Your task to perform on an android device: turn on sleep mode Image 0: 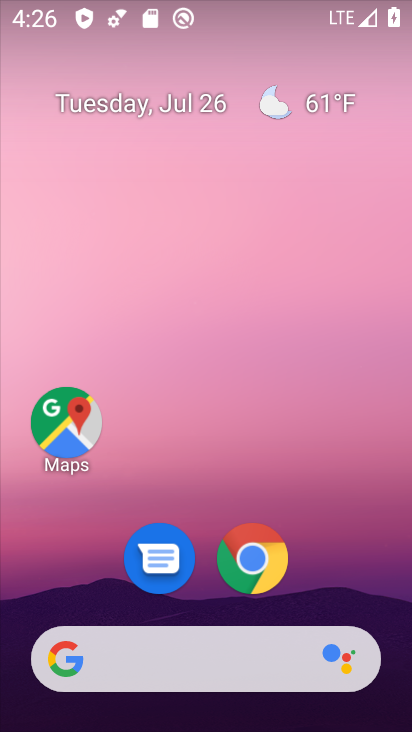
Step 0: drag from (97, 556) to (178, 32)
Your task to perform on an android device: turn on sleep mode Image 1: 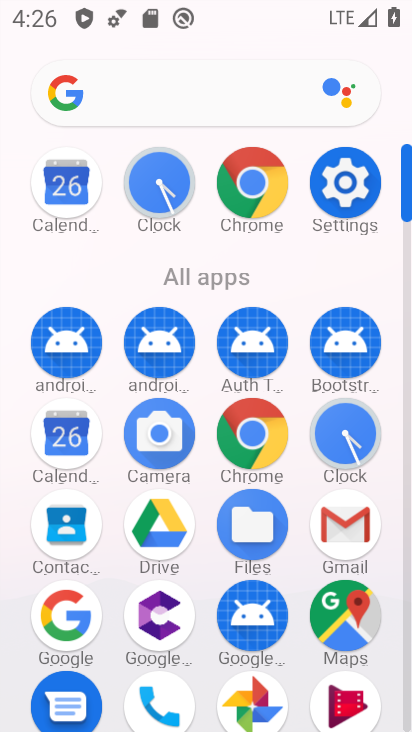
Step 1: click (344, 202)
Your task to perform on an android device: turn on sleep mode Image 2: 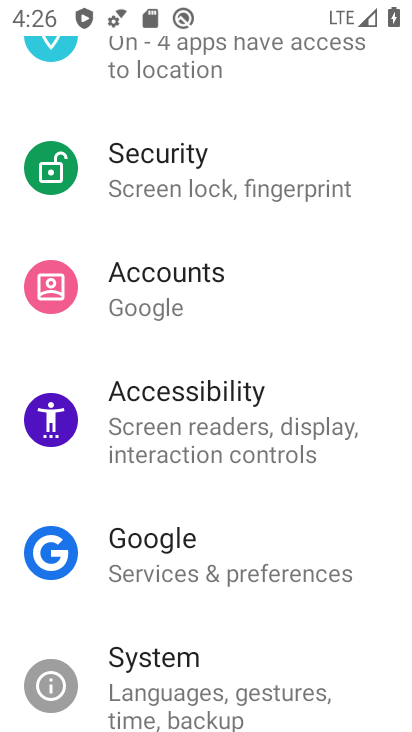
Step 2: drag from (178, 191) to (174, 699)
Your task to perform on an android device: turn on sleep mode Image 3: 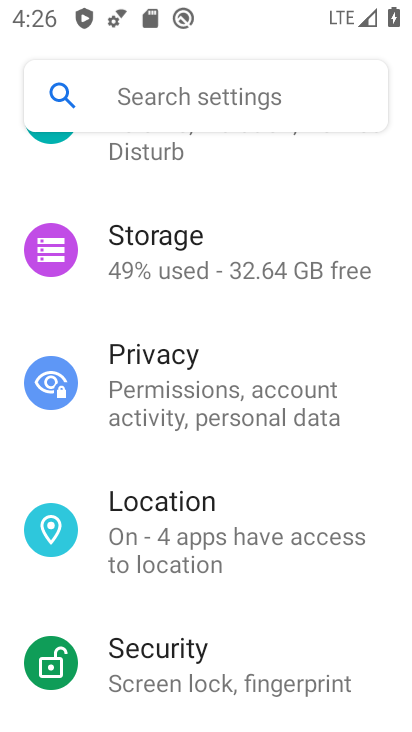
Step 3: click (156, 109)
Your task to perform on an android device: turn on sleep mode Image 4: 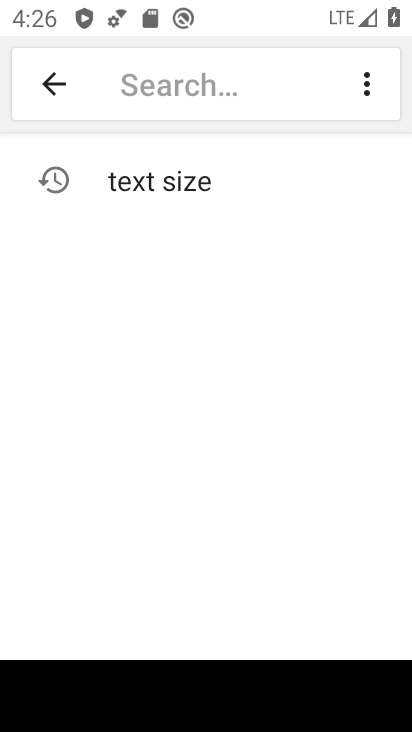
Step 4: type "sleep mode"
Your task to perform on an android device: turn on sleep mode Image 5: 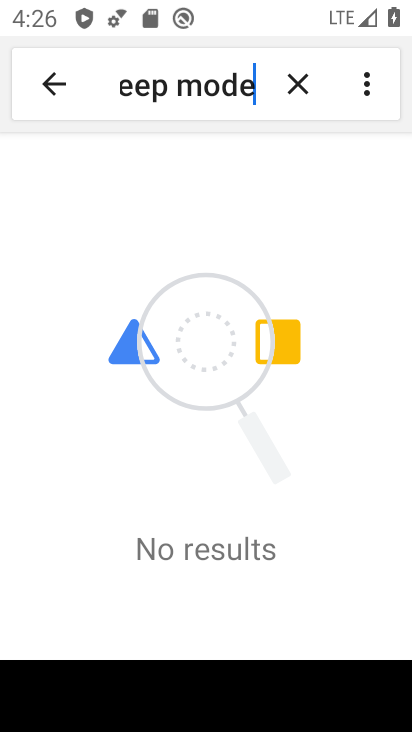
Step 5: task complete